Your task to perform on an android device: check the backup settings in the google photos Image 0: 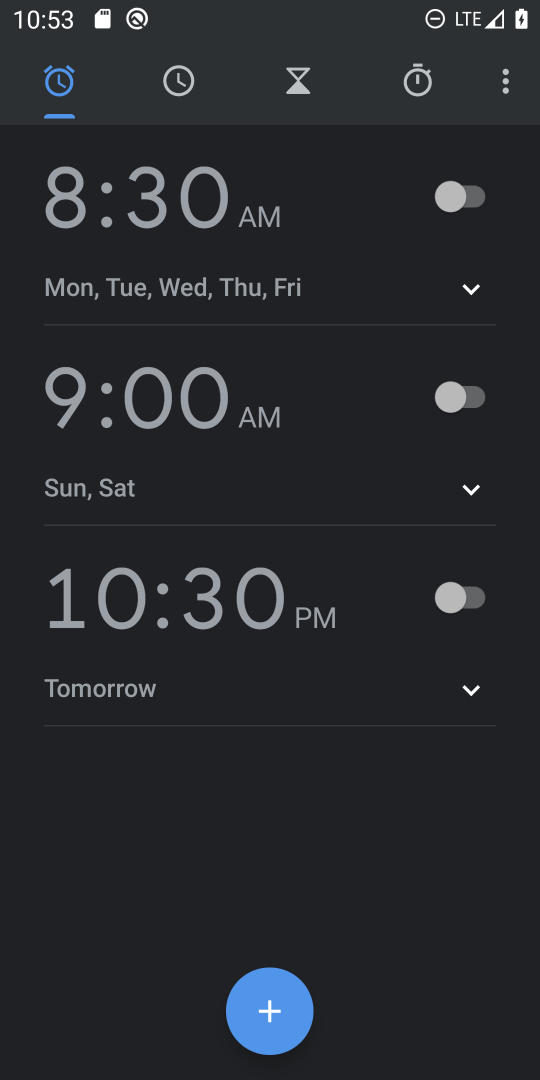
Step 0: press home button
Your task to perform on an android device: check the backup settings in the google photos Image 1: 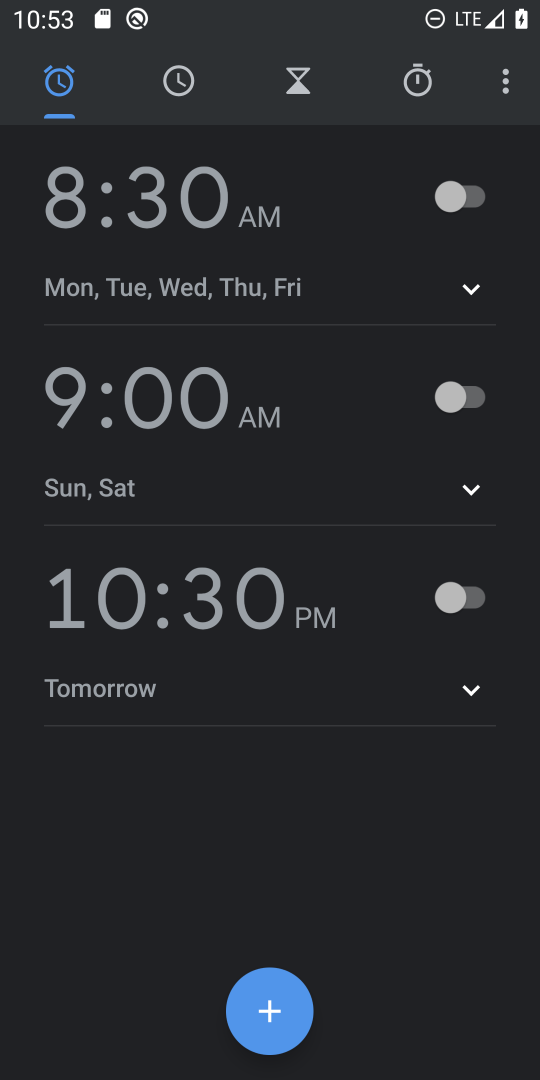
Step 1: press home button
Your task to perform on an android device: check the backup settings in the google photos Image 2: 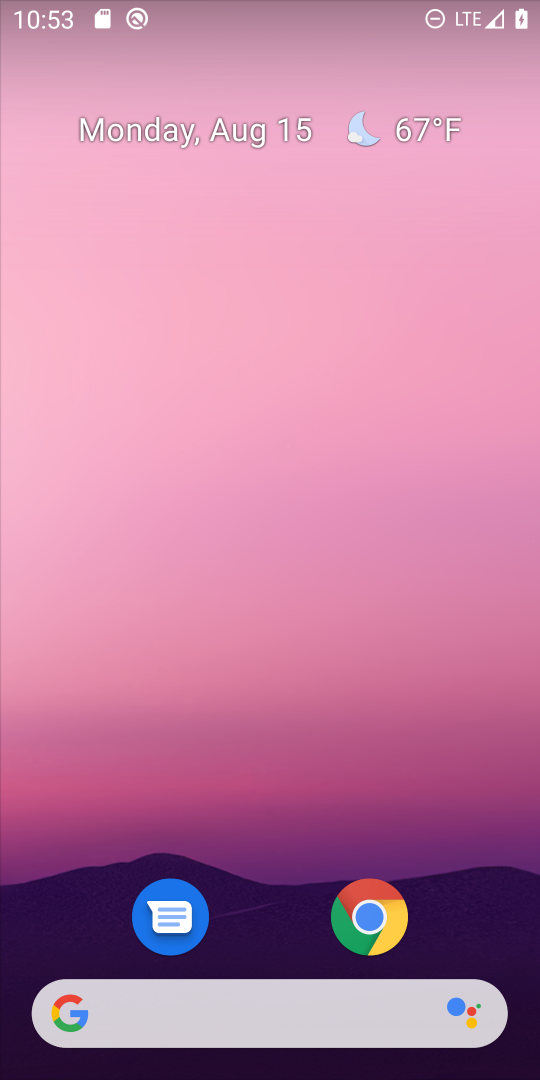
Step 2: drag from (327, 363) to (325, 13)
Your task to perform on an android device: check the backup settings in the google photos Image 3: 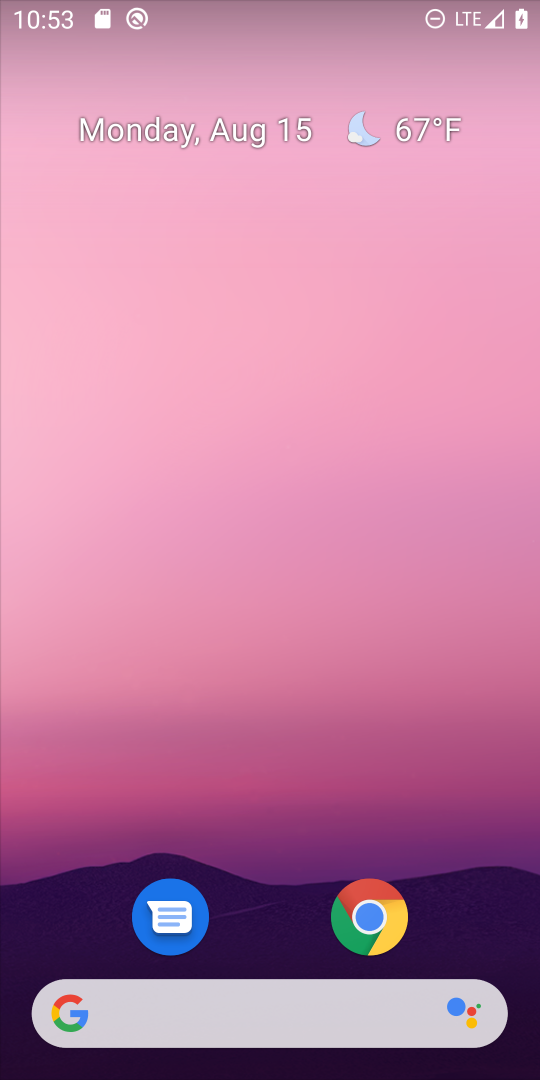
Step 3: drag from (248, 858) to (388, 5)
Your task to perform on an android device: check the backup settings in the google photos Image 4: 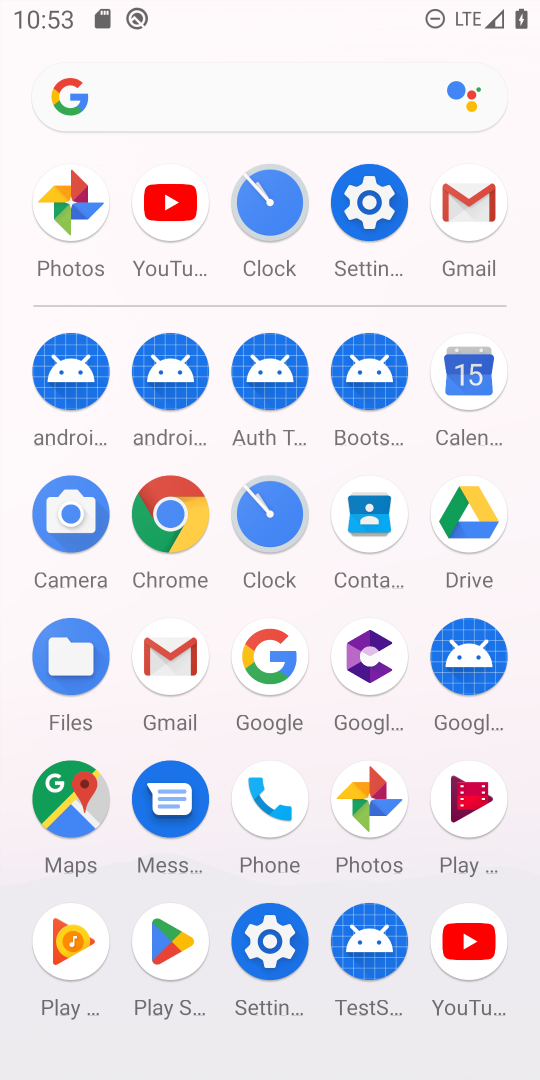
Step 4: click (376, 792)
Your task to perform on an android device: check the backup settings in the google photos Image 5: 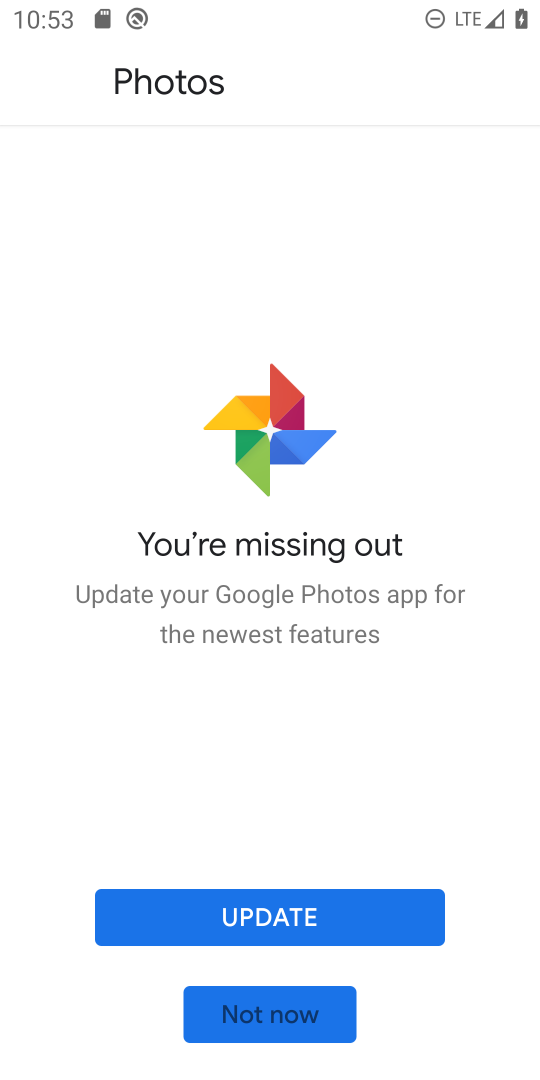
Step 5: click (290, 1004)
Your task to perform on an android device: check the backup settings in the google photos Image 6: 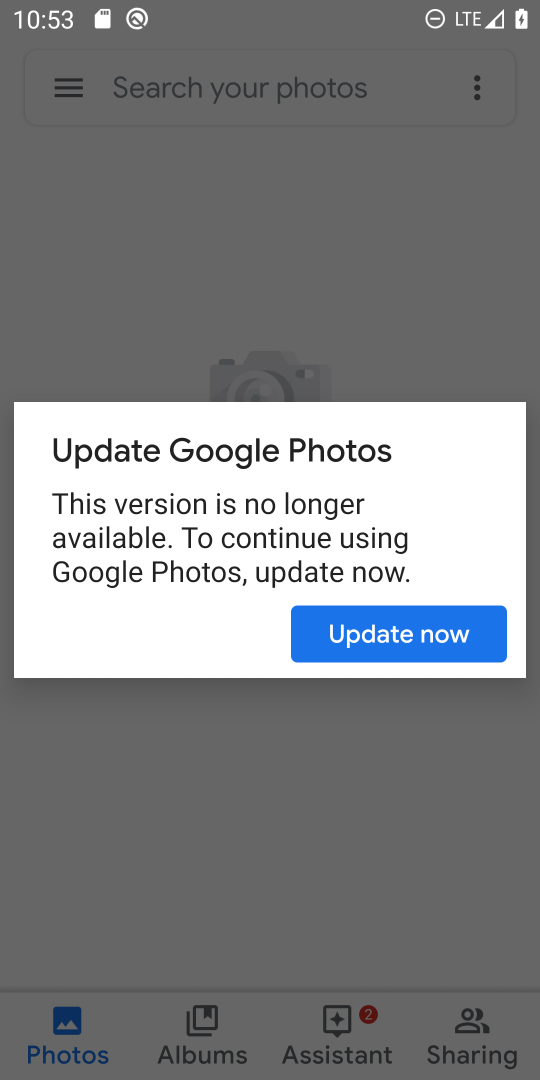
Step 6: click (468, 637)
Your task to perform on an android device: check the backup settings in the google photos Image 7: 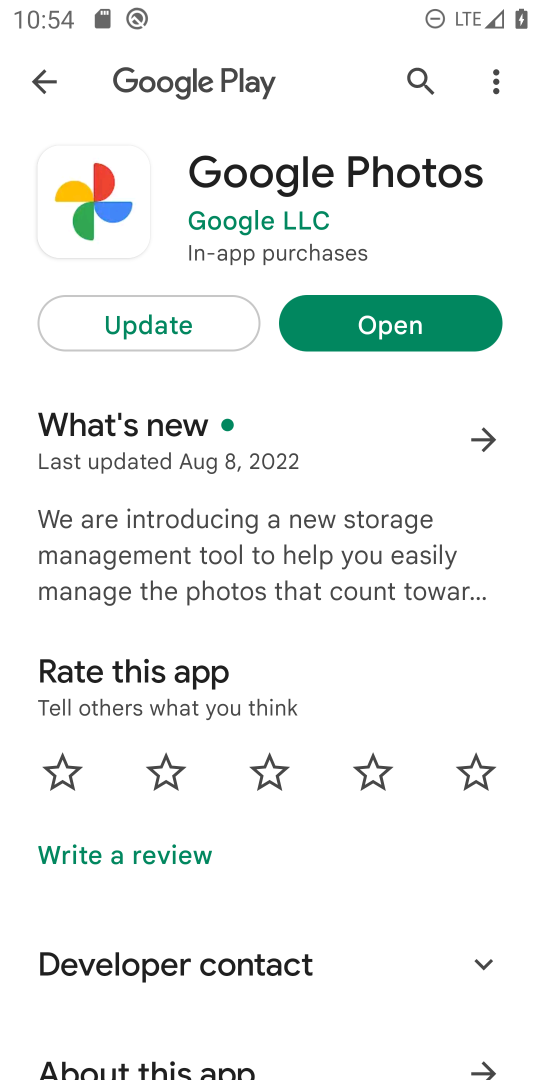
Step 7: click (374, 329)
Your task to perform on an android device: check the backup settings in the google photos Image 8: 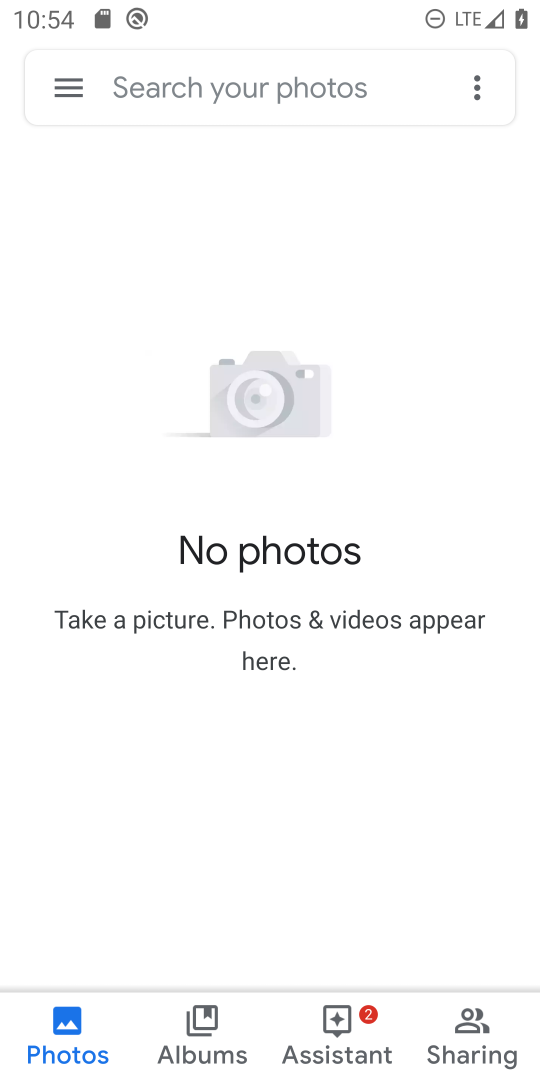
Step 8: click (471, 85)
Your task to perform on an android device: check the backup settings in the google photos Image 9: 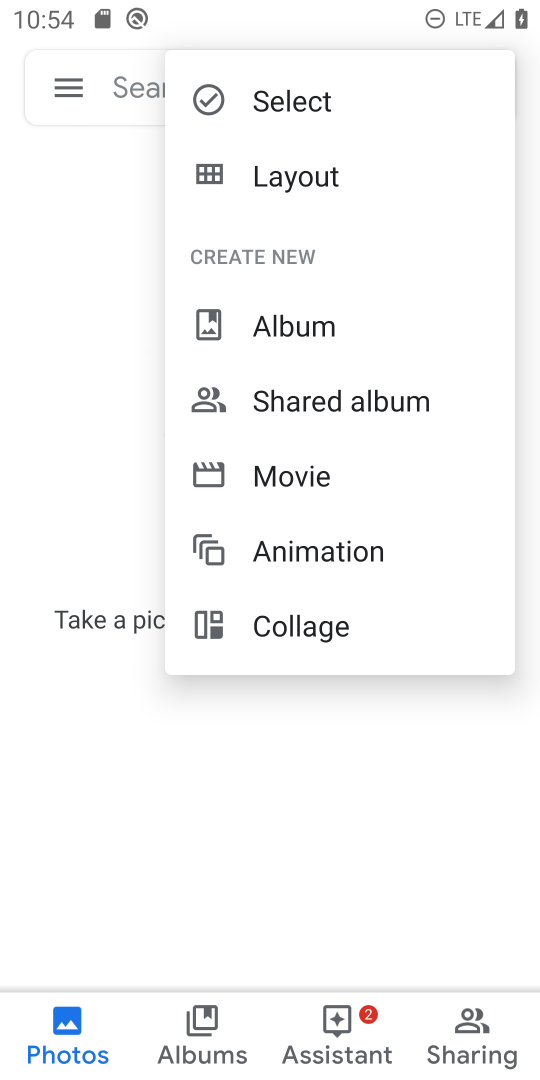
Step 9: click (106, 176)
Your task to perform on an android device: check the backup settings in the google photos Image 10: 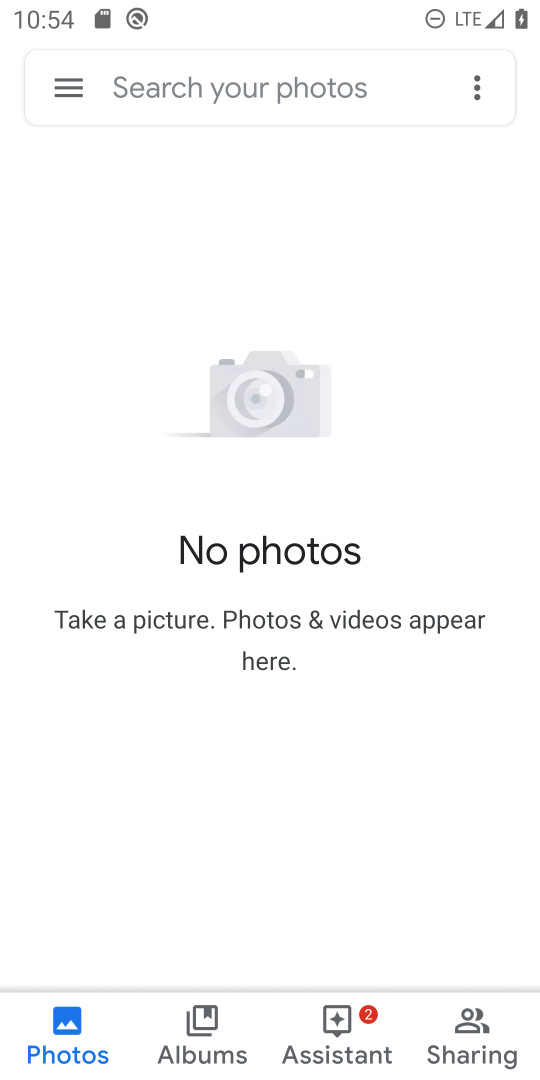
Step 10: click (75, 87)
Your task to perform on an android device: check the backup settings in the google photos Image 11: 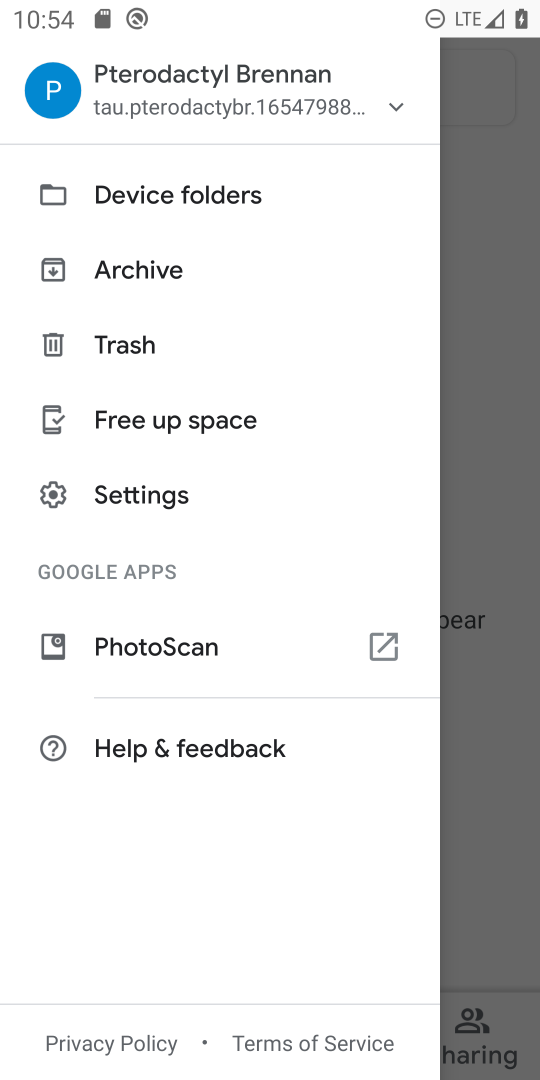
Step 11: click (140, 481)
Your task to perform on an android device: check the backup settings in the google photos Image 12: 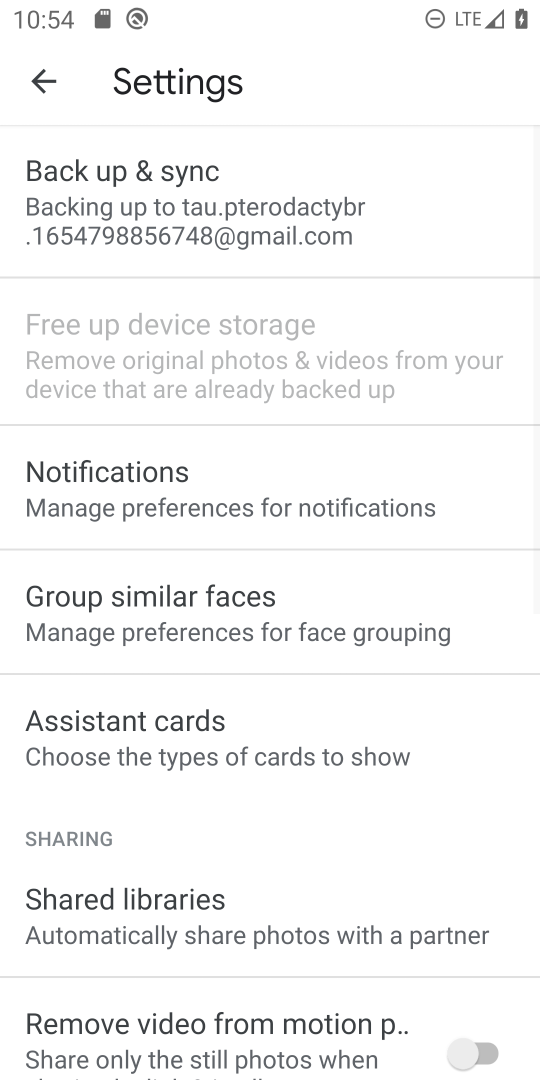
Step 12: click (185, 224)
Your task to perform on an android device: check the backup settings in the google photos Image 13: 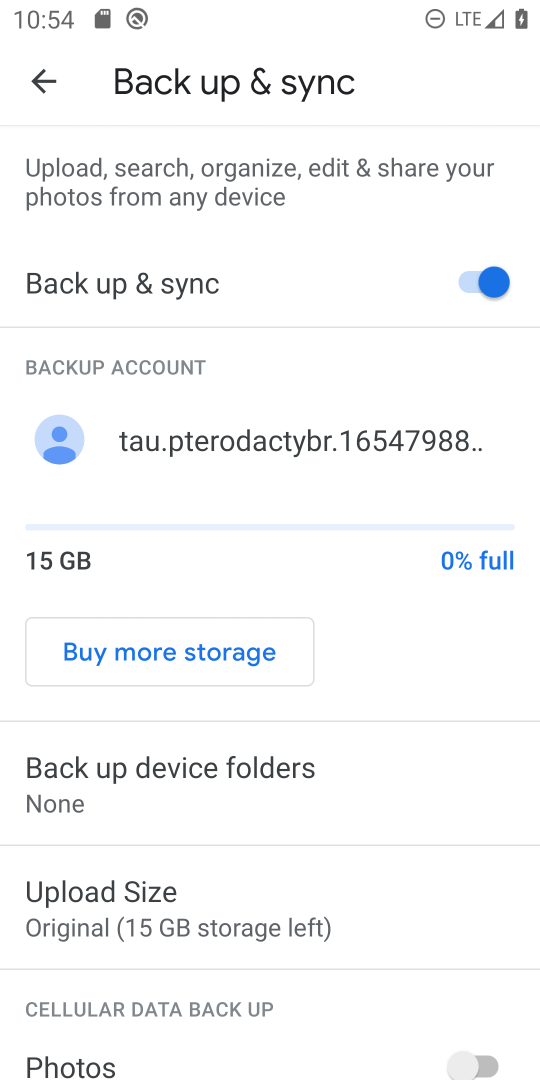
Step 13: task complete